Your task to perform on an android device: Open network settings Image 0: 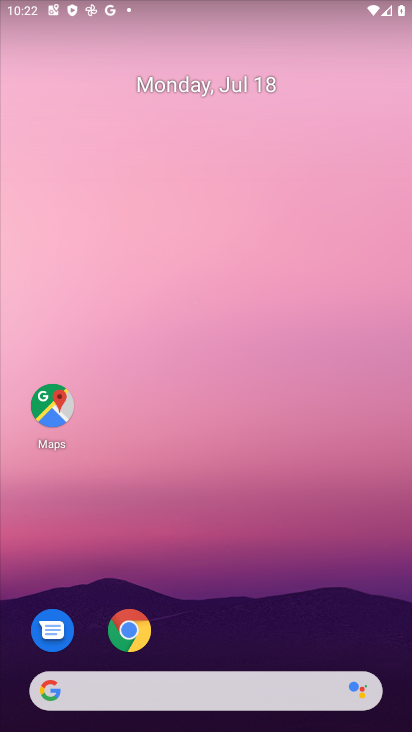
Step 0: drag from (364, 666) to (226, 1)
Your task to perform on an android device: Open network settings Image 1: 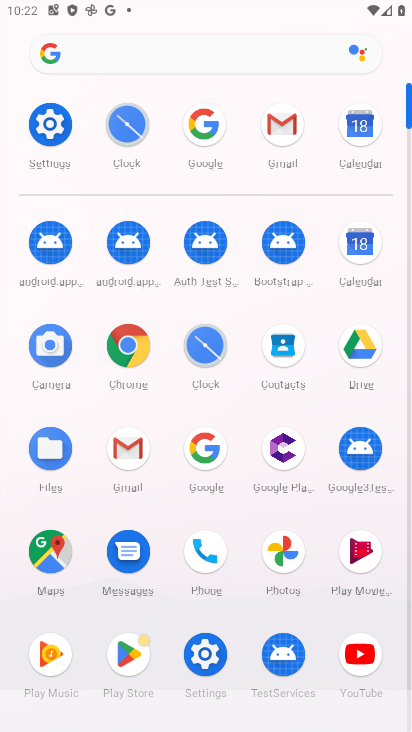
Step 1: click (57, 125)
Your task to perform on an android device: Open network settings Image 2: 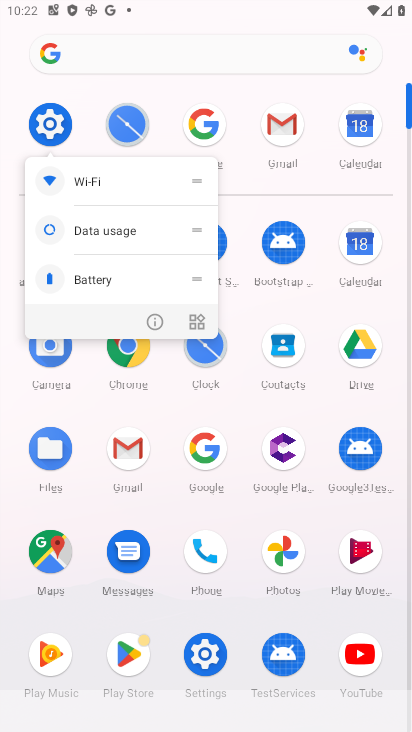
Step 2: click (53, 125)
Your task to perform on an android device: Open network settings Image 3: 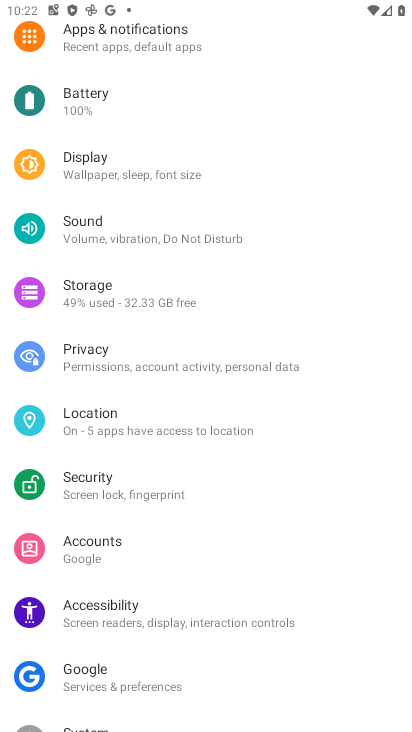
Step 3: drag from (185, 49) to (237, 720)
Your task to perform on an android device: Open network settings Image 4: 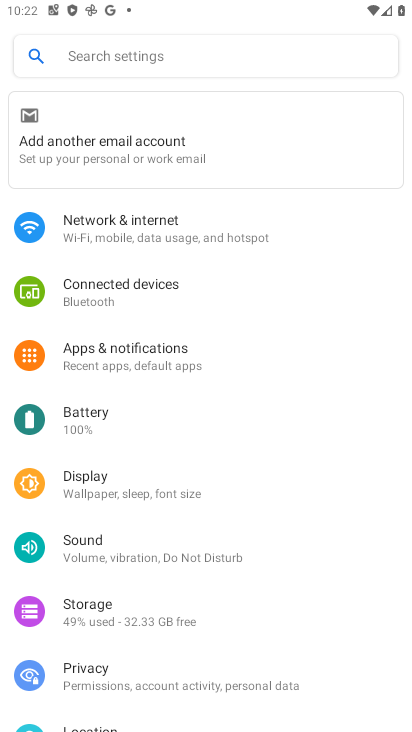
Step 4: click (159, 244)
Your task to perform on an android device: Open network settings Image 5: 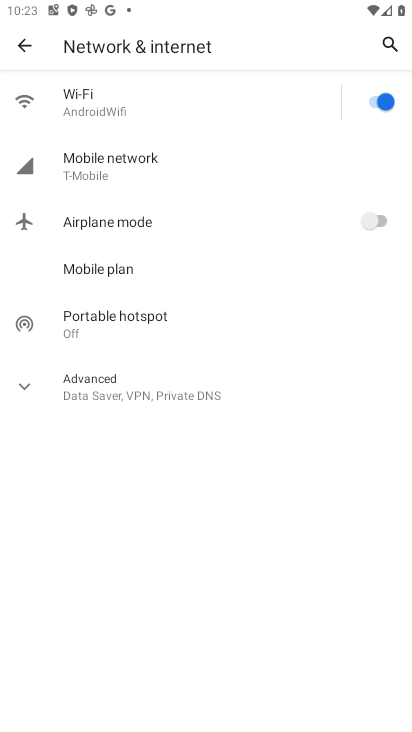
Step 5: task complete